Your task to perform on an android device: Open Google Chrome and click the shortcut for Amazon.com Image 0: 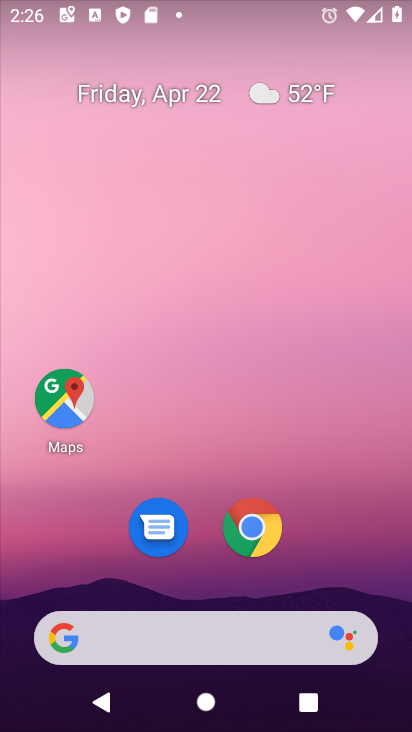
Step 0: drag from (358, 494) to (314, 77)
Your task to perform on an android device: Open Google Chrome and click the shortcut for Amazon.com Image 1: 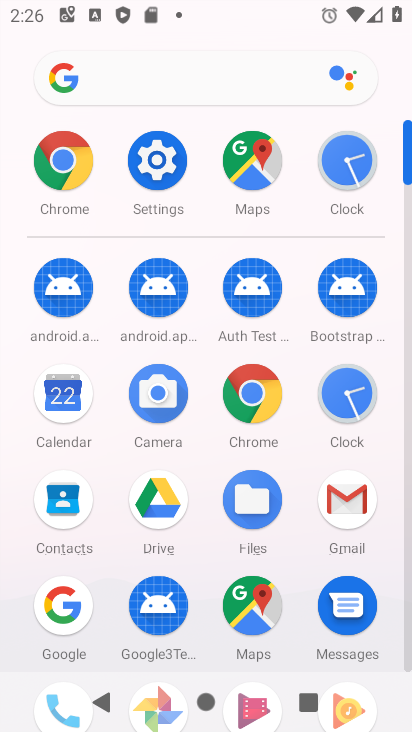
Step 1: click (58, 160)
Your task to perform on an android device: Open Google Chrome and click the shortcut for Amazon.com Image 2: 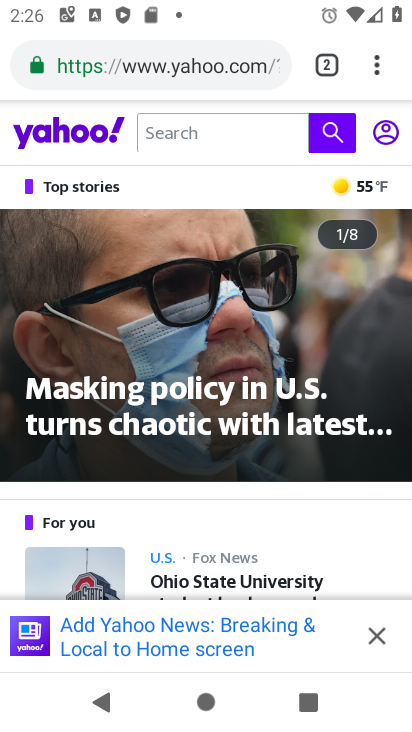
Step 2: click (209, 68)
Your task to perform on an android device: Open Google Chrome and click the shortcut for Amazon.com Image 3: 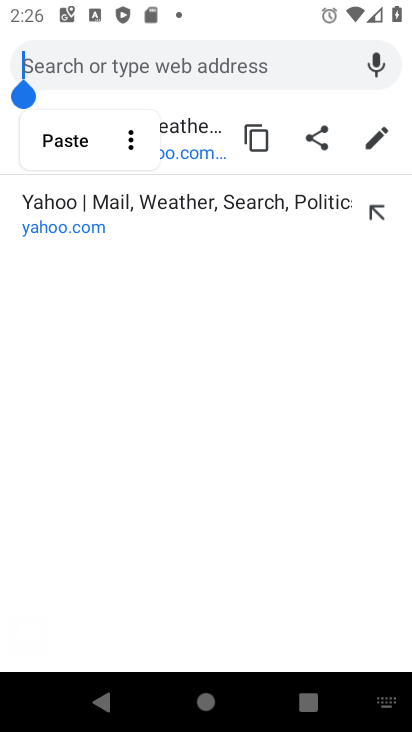
Step 3: click (209, 67)
Your task to perform on an android device: Open Google Chrome and click the shortcut for Amazon.com Image 4: 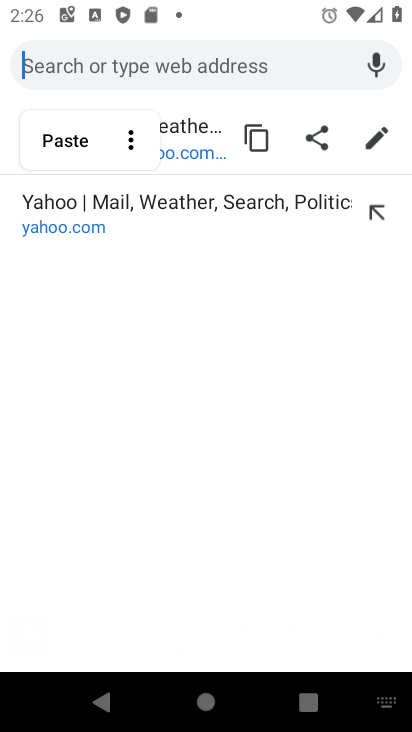
Step 4: type "amazon.com"
Your task to perform on an android device: Open Google Chrome and click the shortcut for Amazon.com Image 5: 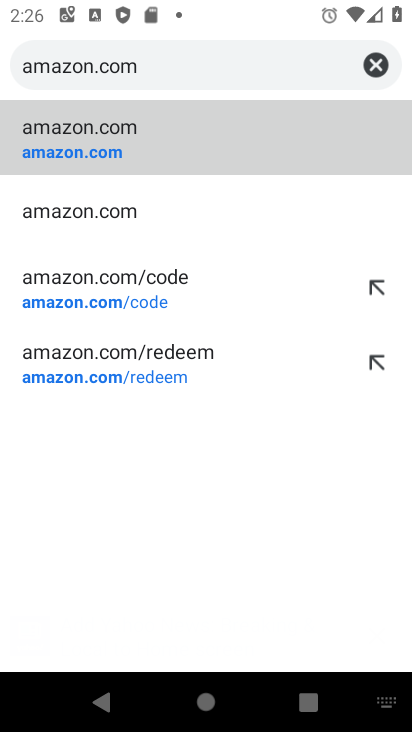
Step 5: click (101, 152)
Your task to perform on an android device: Open Google Chrome and click the shortcut for Amazon.com Image 6: 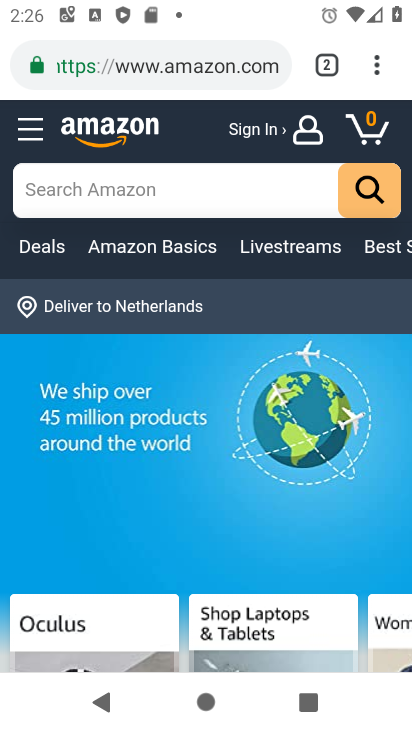
Step 6: task complete